Your task to perform on an android device: snooze an email in the gmail app Image 0: 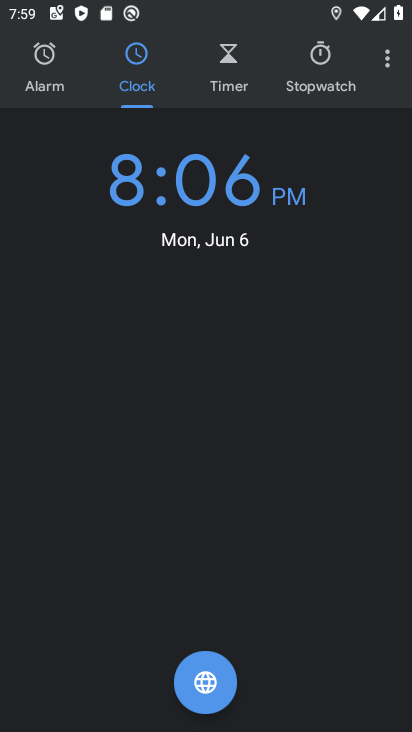
Step 0: press home button
Your task to perform on an android device: snooze an email in the gmail app Image 1: 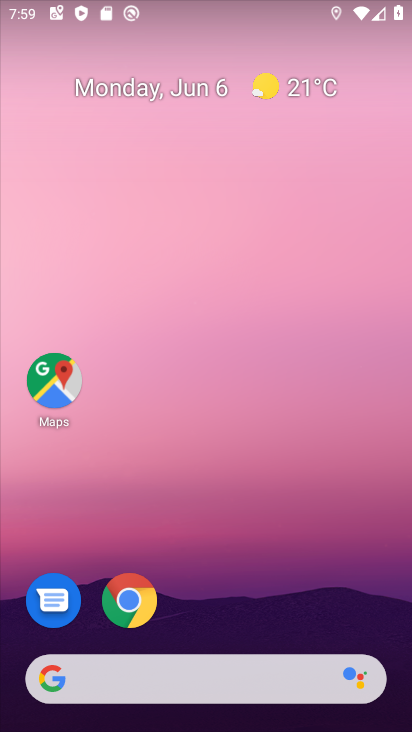
Step 1: drag from (385, 621) to (331, 6)
Your task to perform on an android device: snooze an email in the gmail app Image 2: 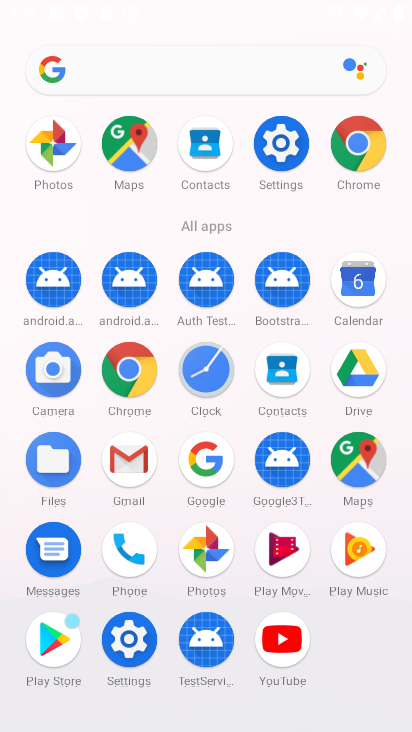
Step 2: click (127, 462)
Your task to perform on an android device: snooze an email in the gmail app Image 3: 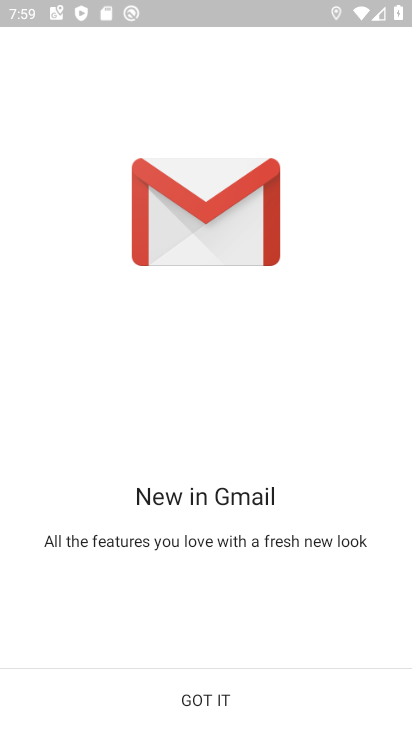
Step 3: click (210, 721)
Your task to perform on an android device: snooze an email in the gmail app Image 4: 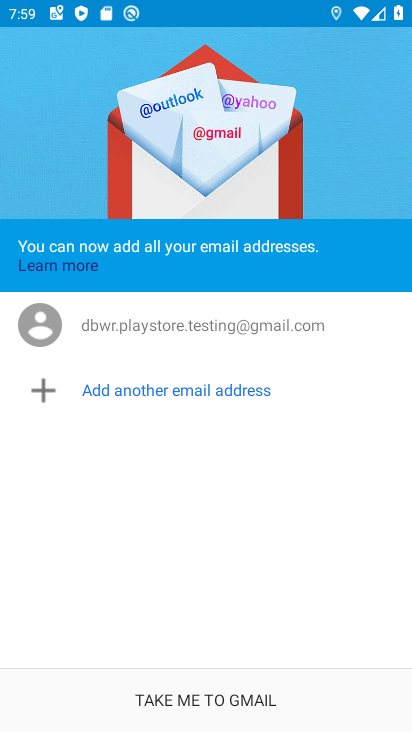
Step 4: click (210, 721)
Your task to perform on an android device: snooze an email in the gmail app Image 5: 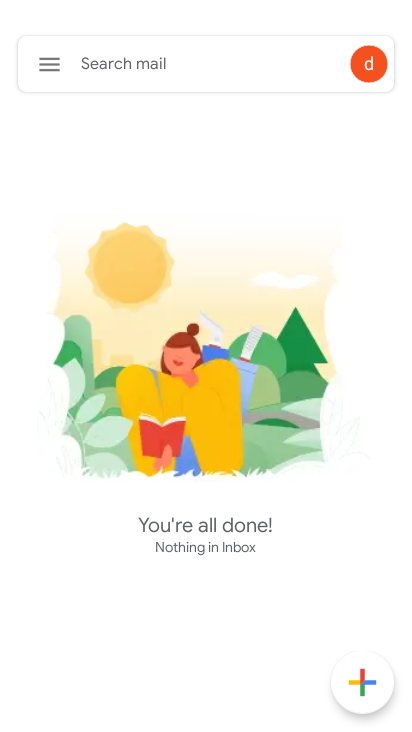
Step 5: click (45, 74)
Your task to perform on an android device: snooze an email in the gmail app Image 6: 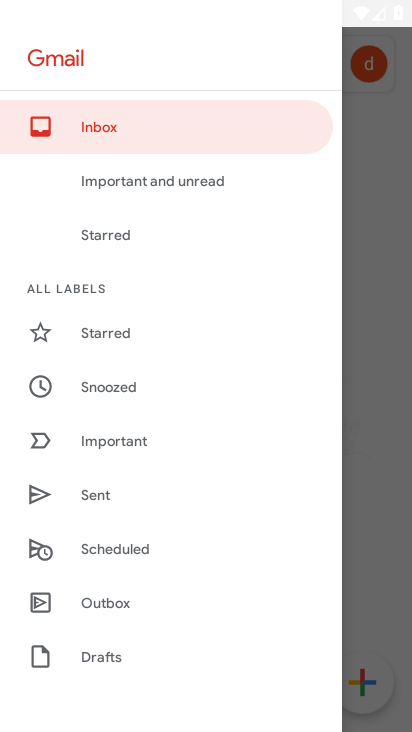
Step 6: drag from (181, 617) to (181, 325)
Your task to perform on an android device: snooze an email in the gmail app Image 7: 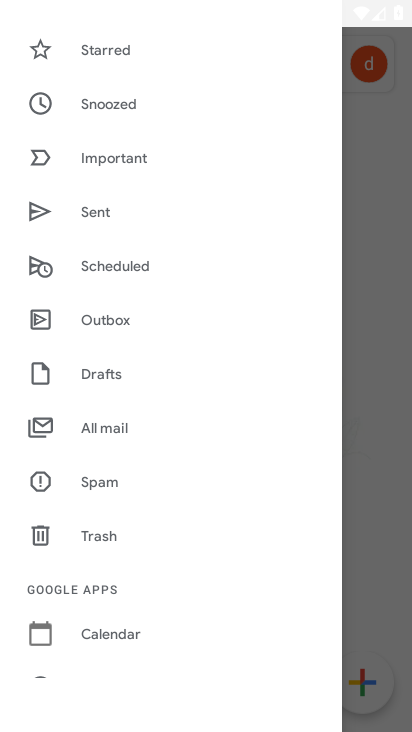
Step 7: click (91, 421)
Your task to perform on an android device: snooze an email in the gmail app Image 8: 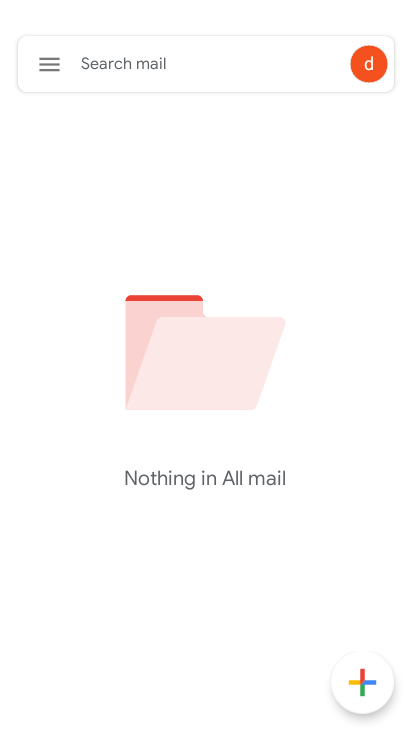
Step 8: task complete